Your task to perform on an android device: Search for the most popular coffee table on Crate & Barrel Image 0: 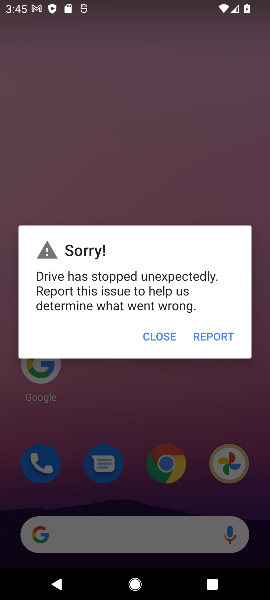
Step 0: press home button
Your task to perform on an android device: Search for the most popular coffee table on Crate & Barrel Image 1: 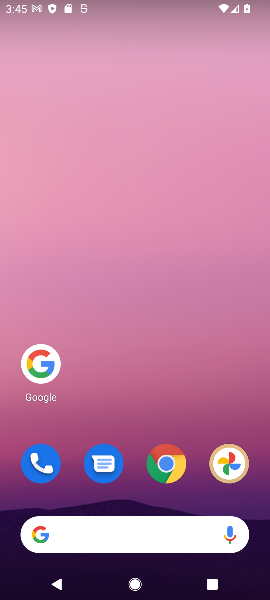
Step 1: click (32, 362)
Your task to perform on an android device: Search for the most popular coffee table on Crate & Barrel Image 2: 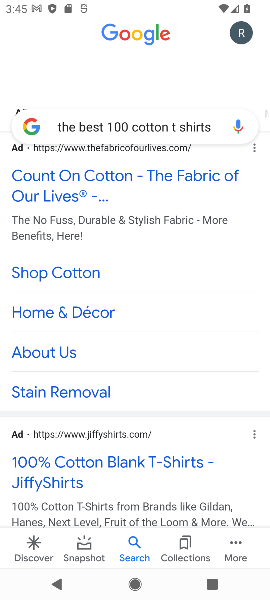
Step 2: click (214, 127)
Your task to perform on an android device: Search for the most popular coffee table on Crate & Barrel Image 3: 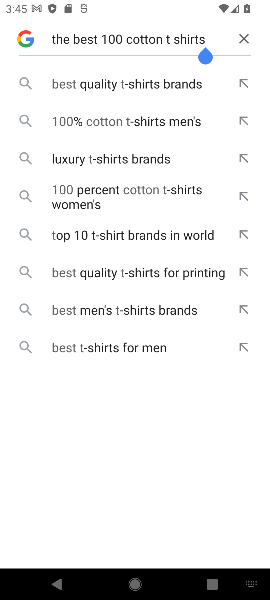
Step 3: click (244, 40)
Your task to perform on an android device: Search for the most popular coffee table on Crate & Barrel Image 4: 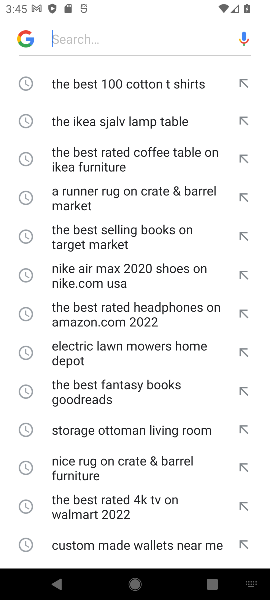
Step 4: click (120, 31)
Your task to perform on an android device: Search for the most popular coffee table on Crate & Barrel Image 5: 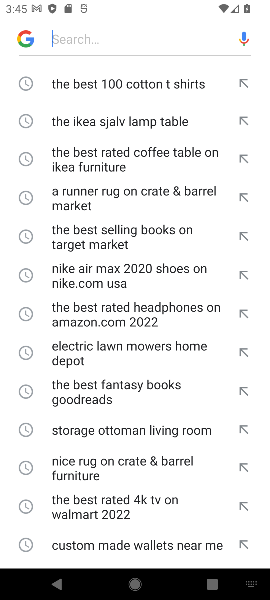
Step 5: type " the most popular coffee table on Crate & Barrel "
Your task to perform on an android device: Search for the most popular coffee table on Crate & Barrel Image 6: 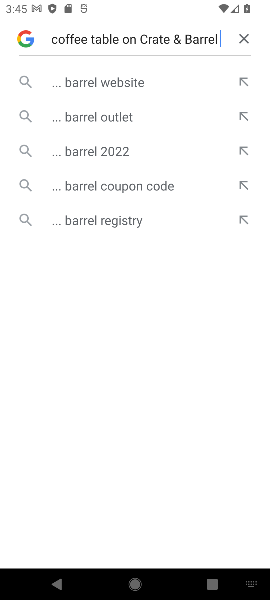
Step 6: click (77, 79)
Your task to perform on an android device: Search for the most popular coffee table on Crate & Barrel Image 7: 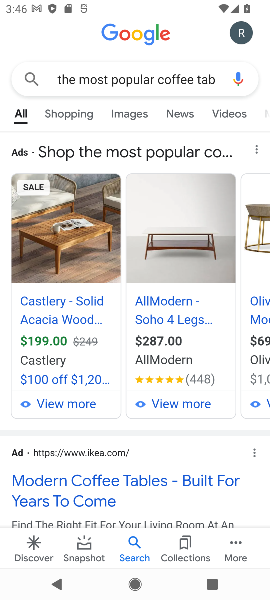
Step 7: drag from (128, 478) to (161, 284)
Your task to perform on an android device: Search for the most popular coffee table on Crate & Barrel Image 8: 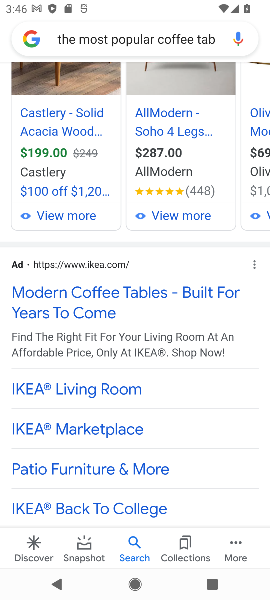
Step 8: drag from (142, 215) to (122, 483)
Your task to perform on an android device: Search for the most popular coffee table on Crate & Barrel Image 9: 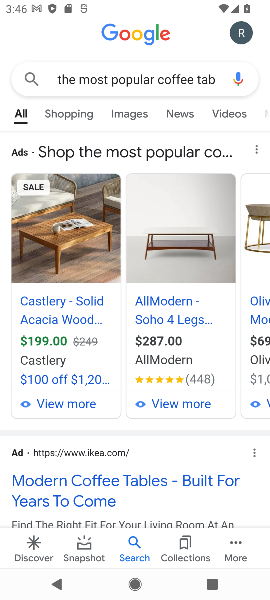
Step 9: click (70, 476)
Your task to perform on an android device: Search for the most popular coffee table on Crate & Barrel Image 10: 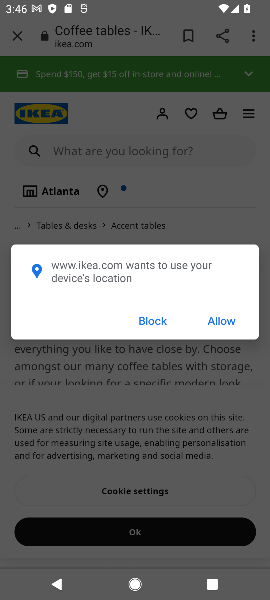
Step 10: click (232, 326)
Your task to perform on an android device: Search for the most popular coffee table on Crate & Barrel Image 11: 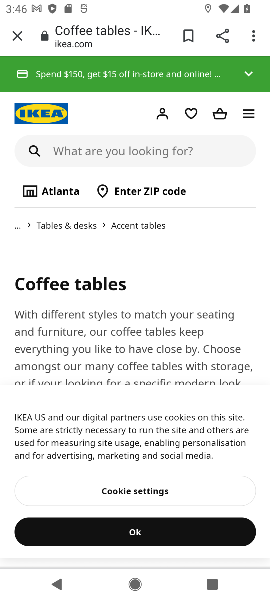
Step 11: press back button
Your task to perform on an android device: Search for the most popular coffee table on Crate & Barrel Image 12: 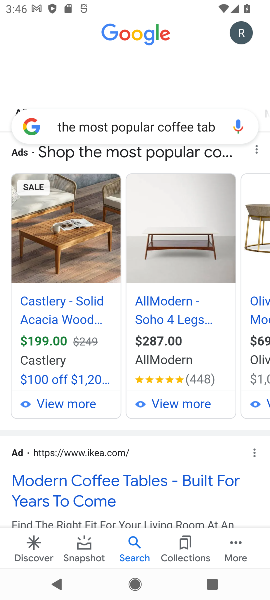
Step 12: drag from (80, 489) to (126, 266)
Your task to perform on an android device: Search for the most popular coffee table on Crate & Barrel Image 13: 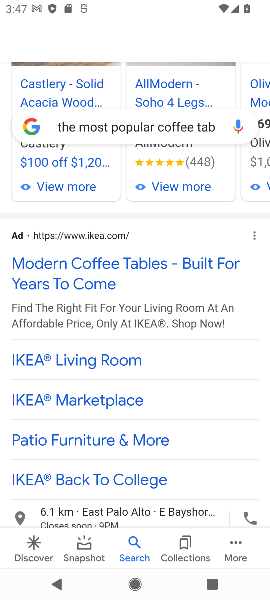
Step 13: click (92, 264)
Your task to perform on an android device: Search for the most popular coffee table on Crate & Barrel Image 14: 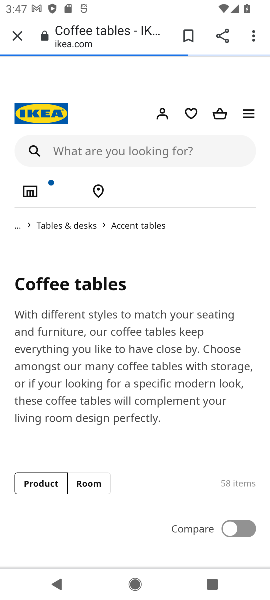
Step 14: click (17, 42)
Your task to perform on an android device: Search for the most popular coffee table on Crate & Barrel Image 15: 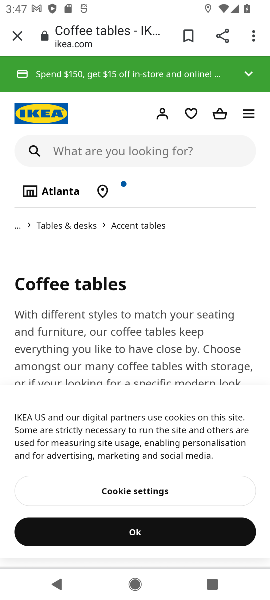
Step 15: press back button
Your task to perform on an android device: Search for the most popular coffee table on Crate & Barrel Image 16: 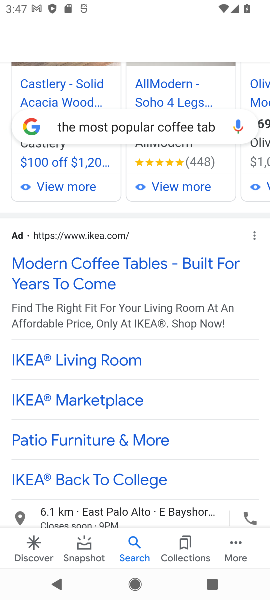
Step 16: drag from (117, 465) to (191, 168)
Your task to perform on an android device: Search for the most popular coffee table on Crate & Barrel Image 17: 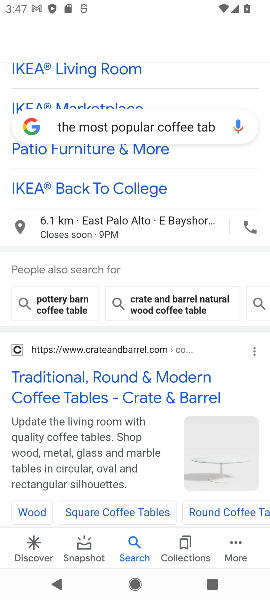
Step 17: click (97, 380)
Your task to perform on an android device: Search for the most popular coffee table on Crate & Barrel Image 18: 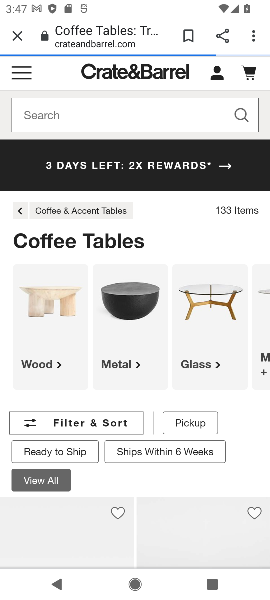
Step 18: task complete